Your task to perform on an android device: See recent photos Image 0: 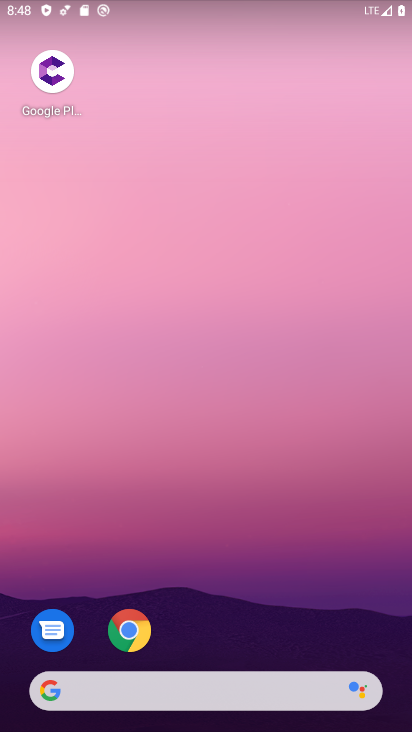
Step 0: drag from (232, 672) to (23, 126)
Your task to perform on an android device: See recent photos Image 1: 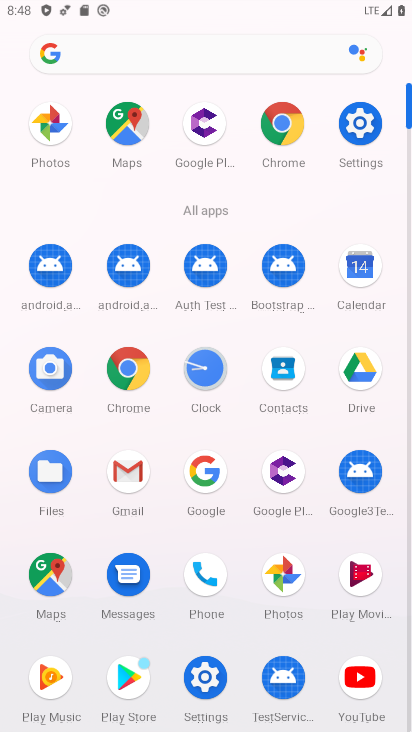
Step 1: click (307, 596)
Your task to perform on an android device: See recent photos Image 2: 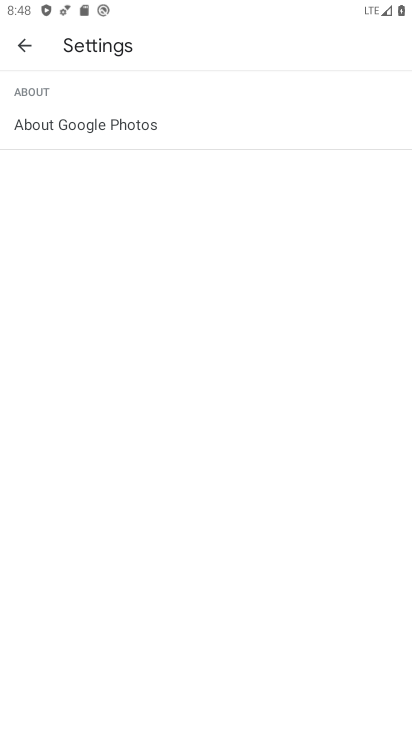
Step 2: click (307, 596)
Your task to perform on an android device: See recent photos Image 3: 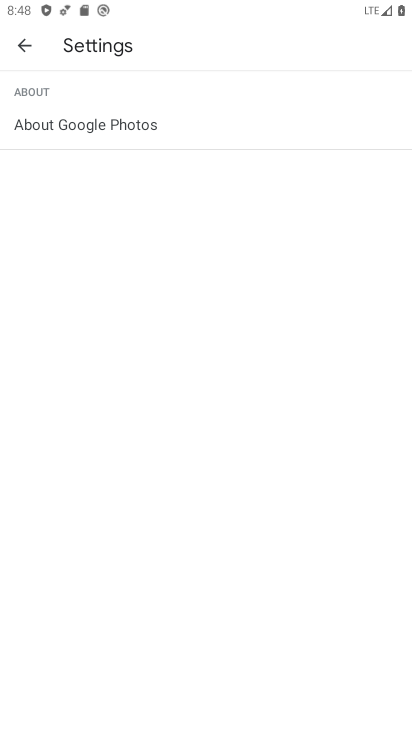
Step 3: click (13, 37)
Your task to perform on an android device: See recent photos Image 4: 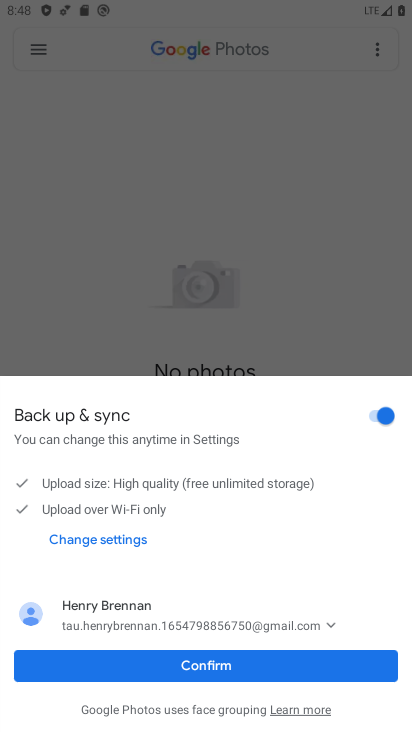
Step 4: click (207, 668)
Your task to perform on an android device: See recent photos Image 5: 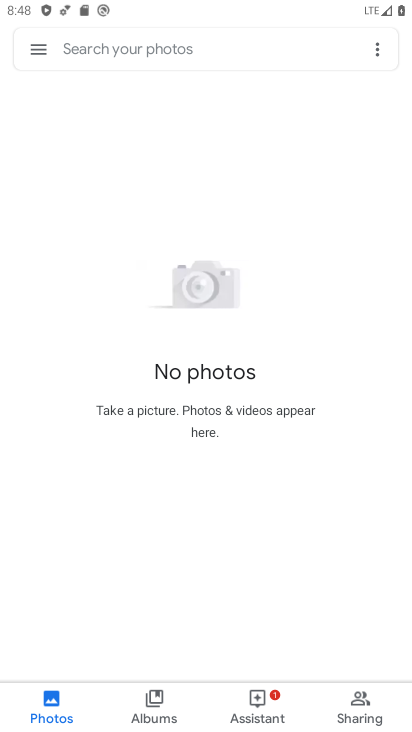
Step 5: task complete